Your task to perform on an android device: turn off location history Image 0: 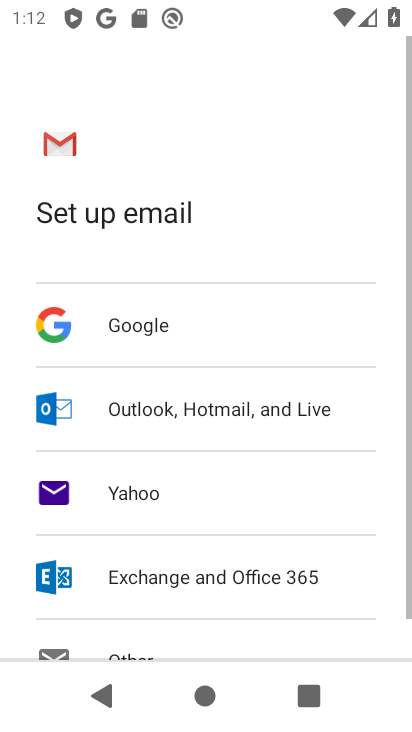
Step 0: press home button
Your task to perform on an android device: turn off location history Image 1: 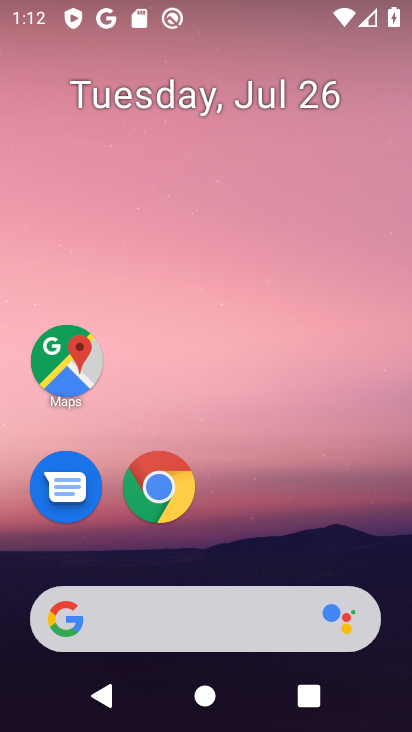
Step 1: drag from (240, 673) to (240, 170)
Your task to perform on an android device: turn off location history Image 2: 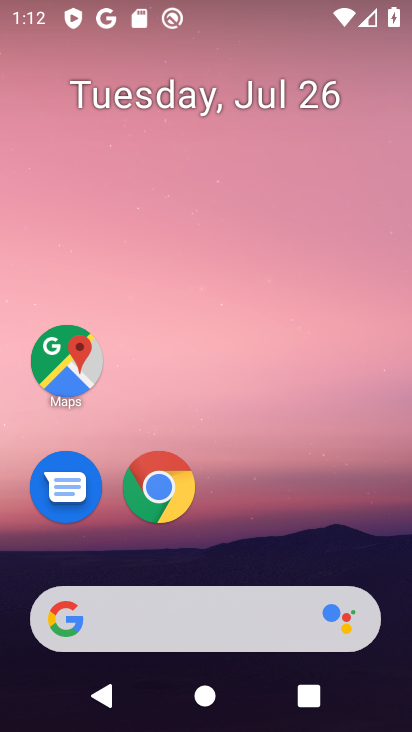
Step 2: drag from (261, 498) to (260, 145)
Your task to perform on an android device: turn off location history Image 3: 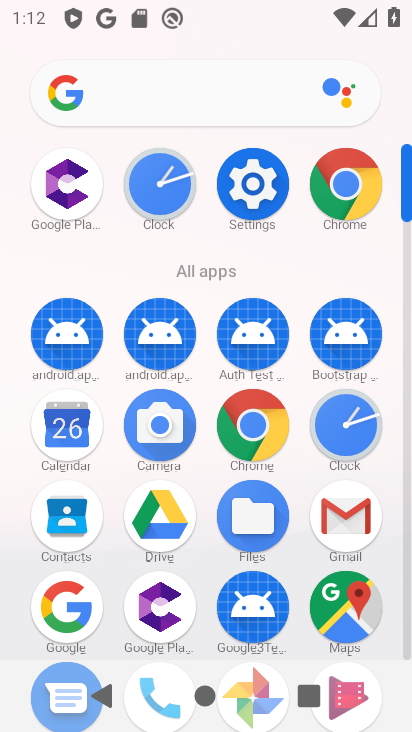
Step 3: click (265, 200)
Your task to perform on an android device: turn off location history Image 4: 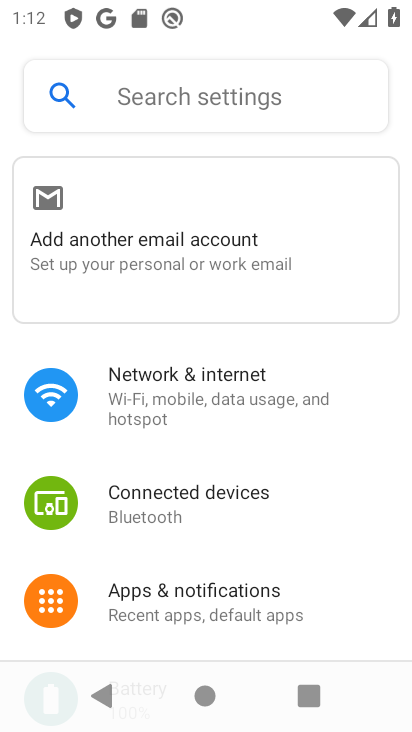
Step 4: drag from (228, 494) to (238, 112)
Your task to perform on an android device: turn off location history Image 5: 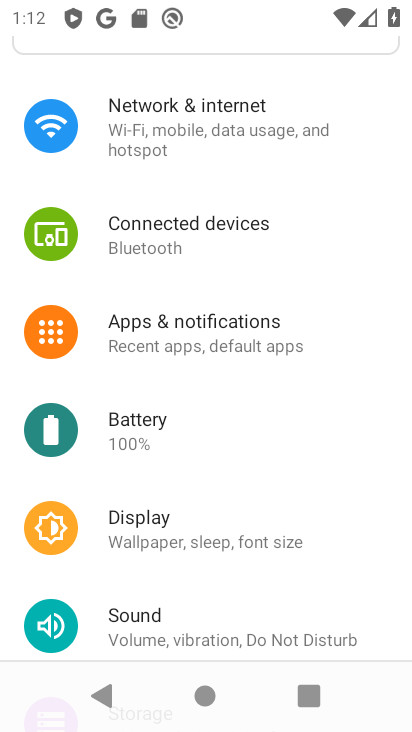
Step 5: drag from (224, 416) to (231, 206)
Your task to perform on an android device: turn off location history Image 6: 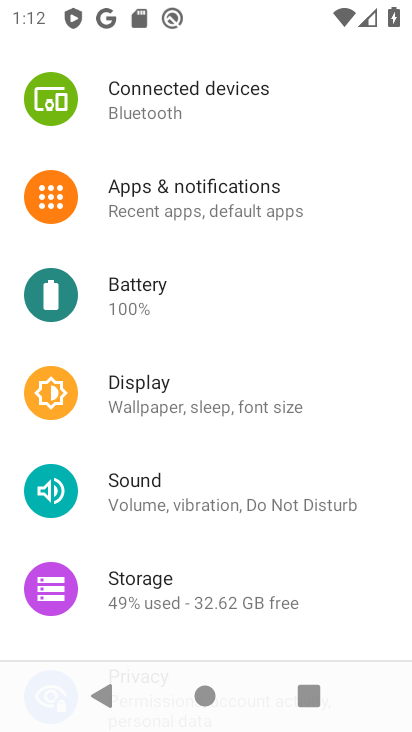
Step 6: drag from (220, 478) to (215, 125)
Your task to perform on an android device: turn off location history Image 7: 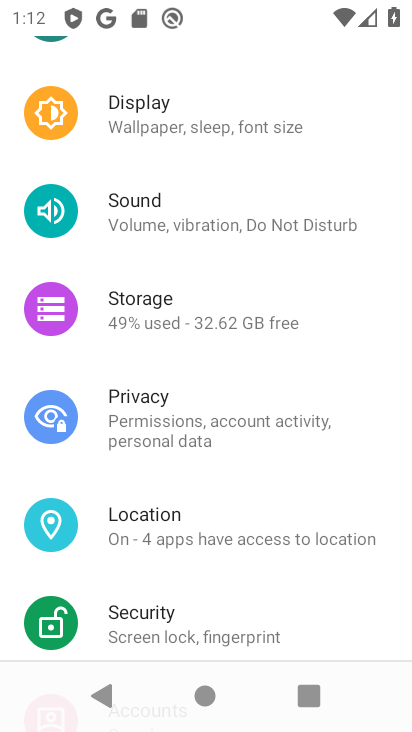
Step 7: click (208, 441)
Your task to perform on an android device: turn off location history Image 8: 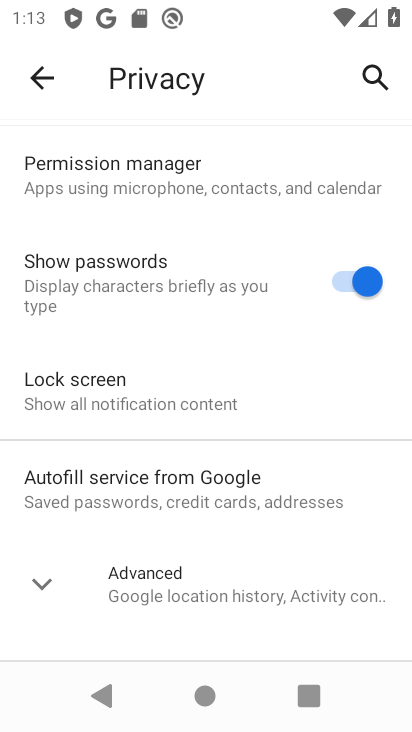
Step 8: click (41, 85)
Your task to perform on an android device: turn off location history Image 9: 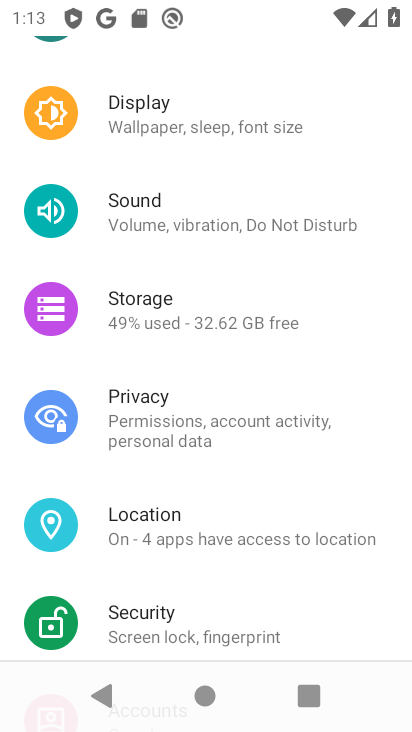
Step 9: click (197, 516)
Your task to perform on an android device: turn off location history Image 10: 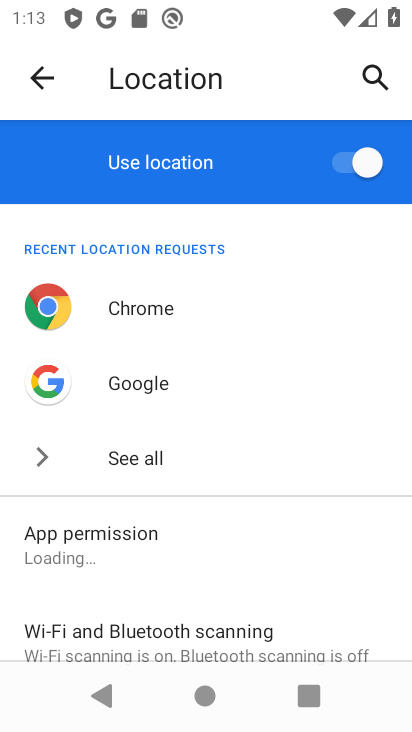
Step 10: click (347, 172)
Your task to perform on an android device: turn off location history Image 11: 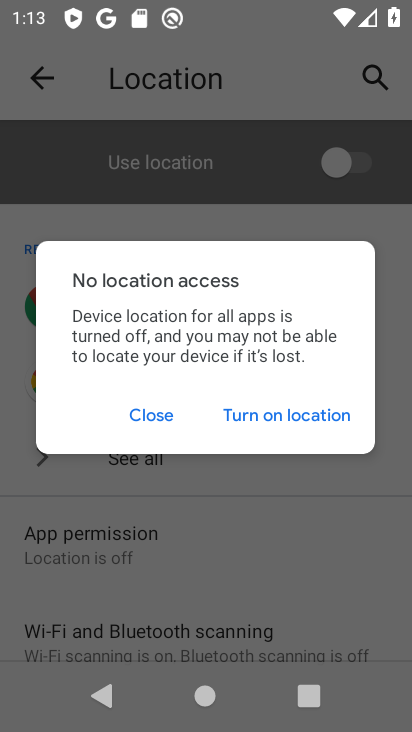
Step 11: click (160, 421)
Your task to perform on an android device: turn off location history Image 12: 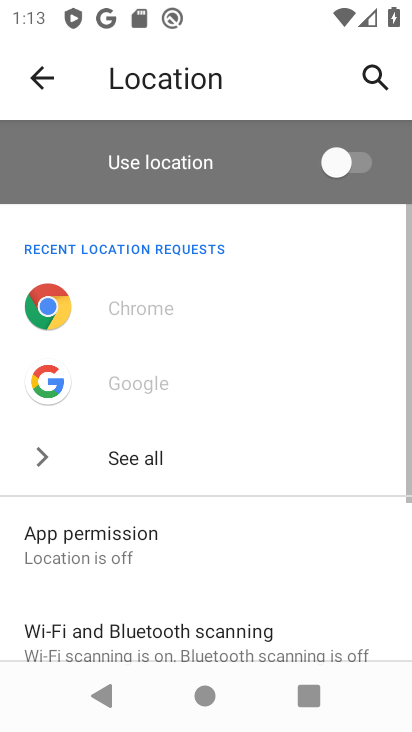
Step 12: task complete